Your task to perform on an android device: Search for vegetarian restaurants on Maps Image 0: 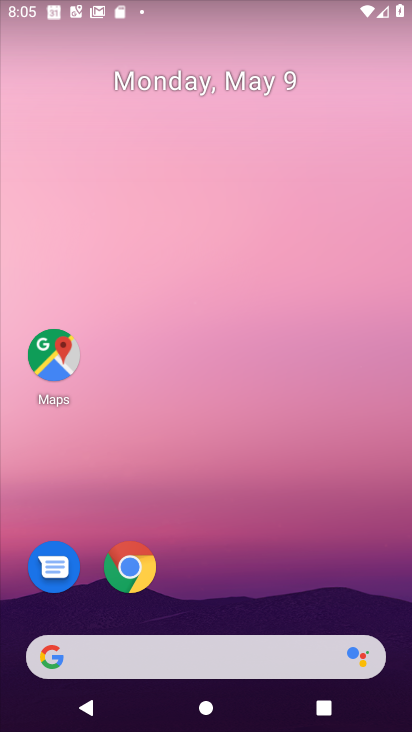
Step 0: click (210, 235)
Your task to perform on an android device: Search for vegetarian restaurants on Maps Image 1: 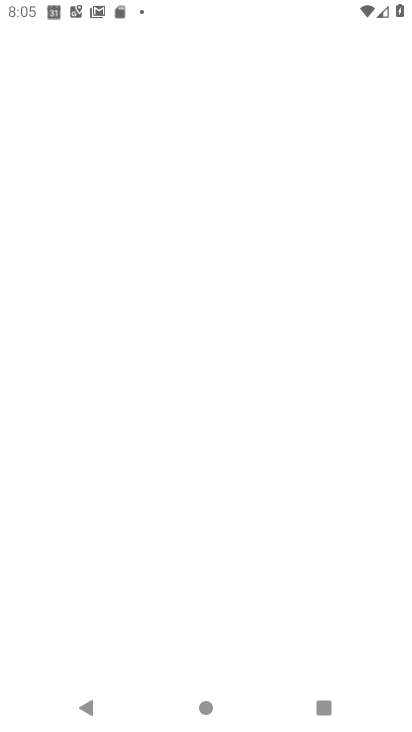
Step 1: drag from (182, 623) to (202, 289)
Your task to perform on an android device: Search for vegetarian restaurants on Maps Image 2: 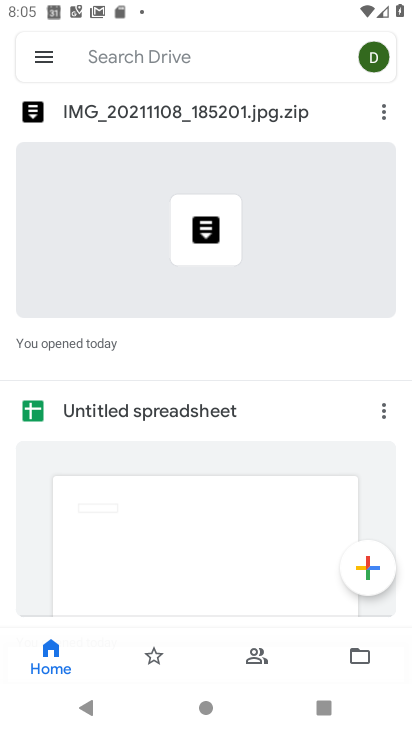
Step 2: press home button
Your task to perform on an android device: Search for vegetarian restaurants on Maps Image 3: 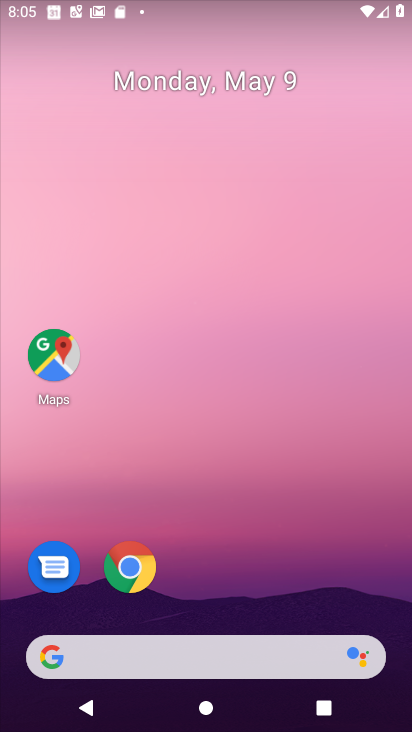
Step 3: click (50, 346)
Your task to perform on an android device: Search for vegetarian restaurants on Maps Image 4: 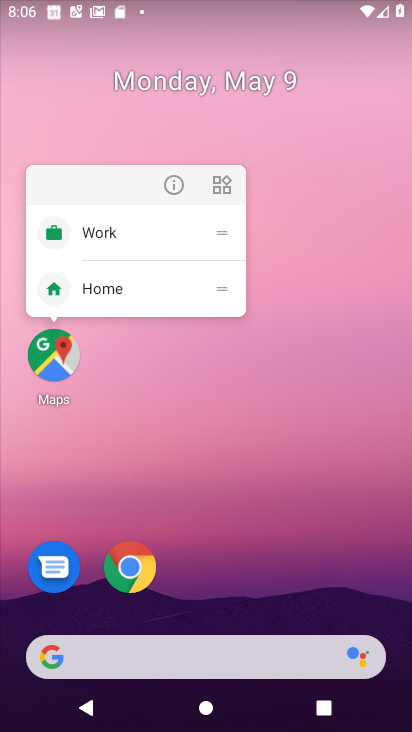
Step 4: click (180, 189)
Your task to perform on an android device: Search for vegetarian restaurants on Maps Image 5: 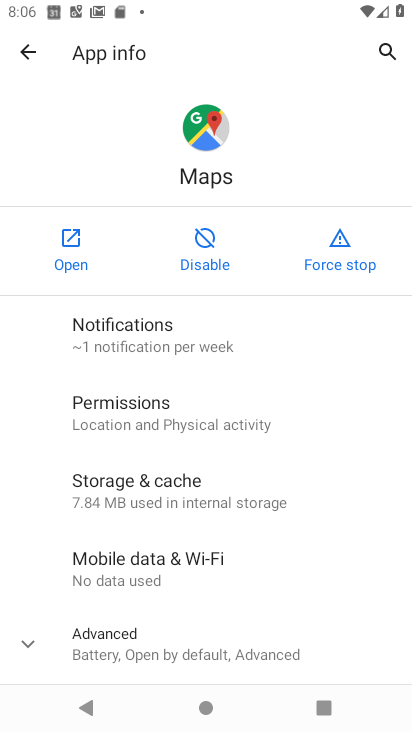
Step 5: click (71, 256)
Your task to perform on an android device: Search for vegetarian restaurants on Maps Image 6: 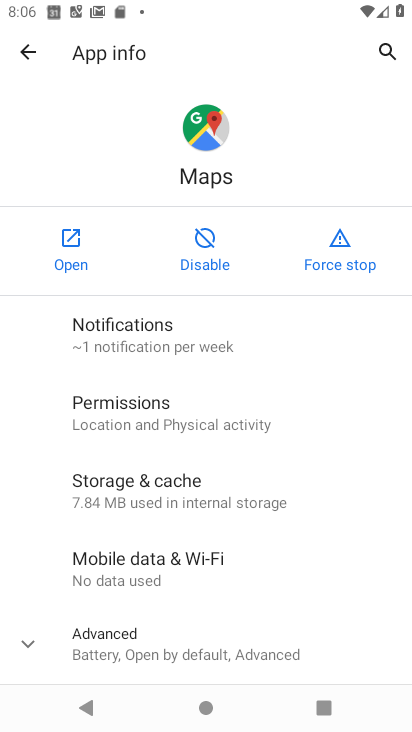
Step 6: click (71, 256)
Your task to perform on an android device: Search for vegetarian restaurants on Maps Image 7: 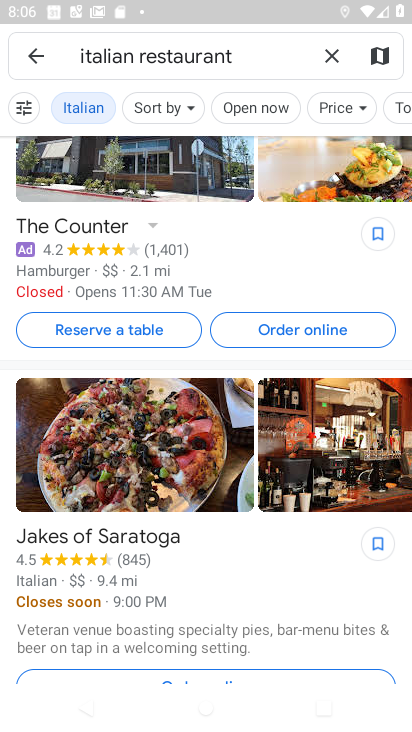
Step 7: click (323, 61)
Your task to perform on an android device: Search for vegetarian restaurants on Maps Image 8: 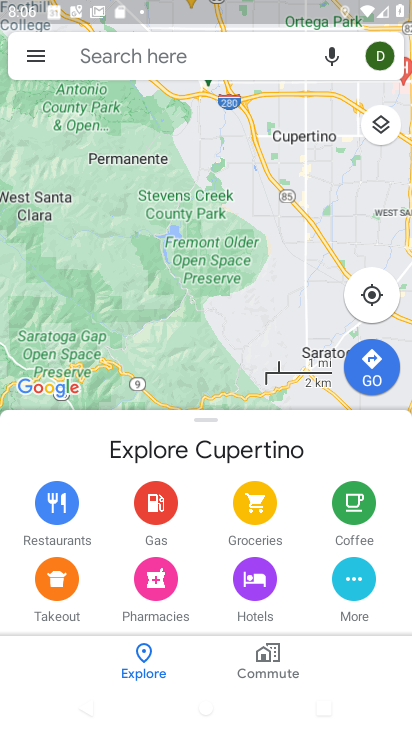
Step 8: click (258, 67)
Your task to perform on an android device: Search for vegetarian restaurants on Maps Image 9: 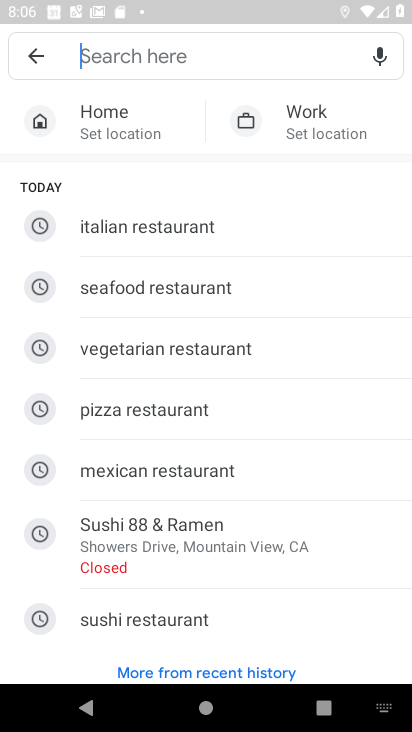
Step 9: click (145, 345)
Your task to perform on an android device: Search for vegetarian restaurants on Maps Image 10: 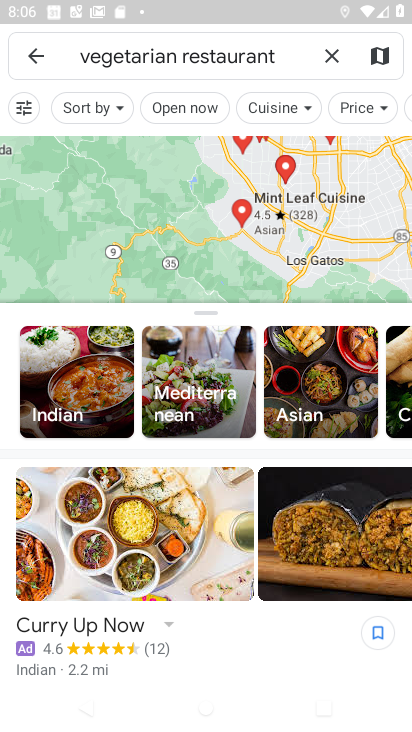
Step 10: task complete